Your task to perform on an android device: turn off wifi Image 0: 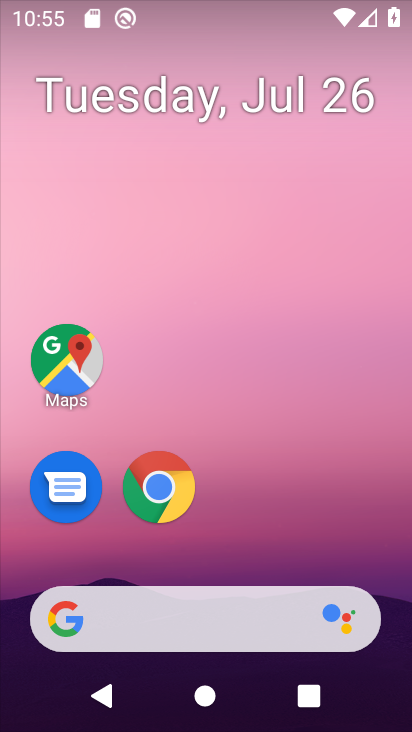
Step 0: drag from (93, 186) to (120, 524)
Your task to perform on an android device: turn off wifi Image 1: 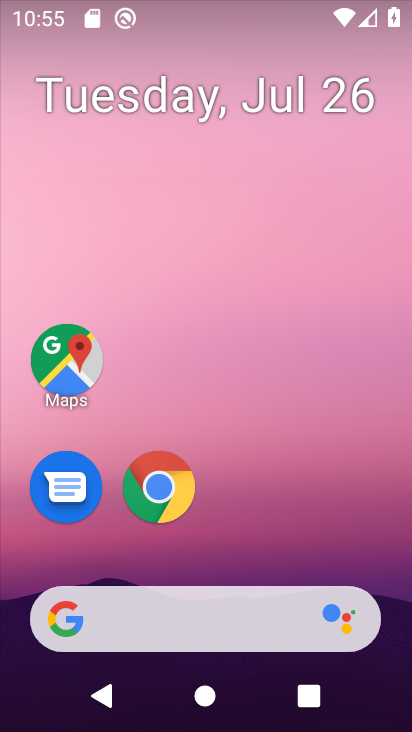
Step 1: drag from (248, 15) to (239, 557)
Your task to perform on an android device: turn off wifi Image 2: 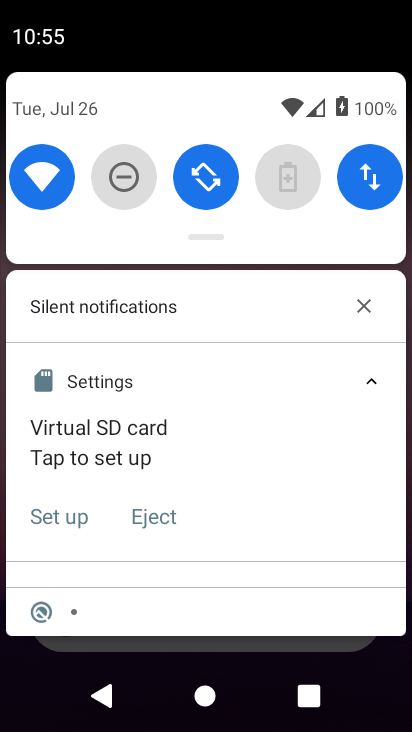
Step 2: click (46, 173)
Your task to perform on an android device: turn off wifi Image 3: 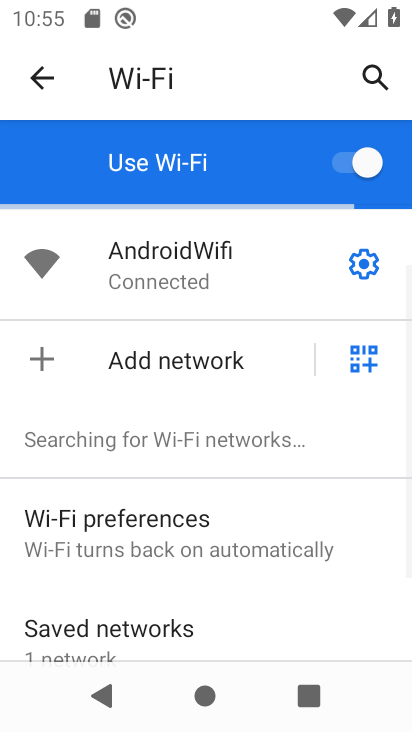
Step 3: task complete